Your task to perform on an android device: toggle sleep mode Image 0: 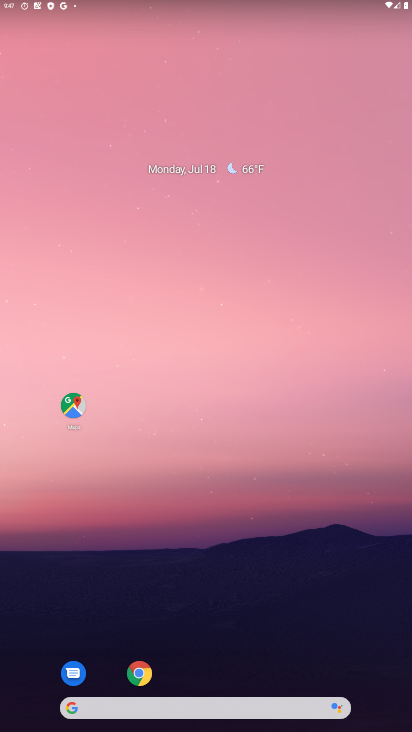
Step 0: drag from (194, 673) to (180, 98)
Your task to perform on an android device: toggle sleep mode Image 1: 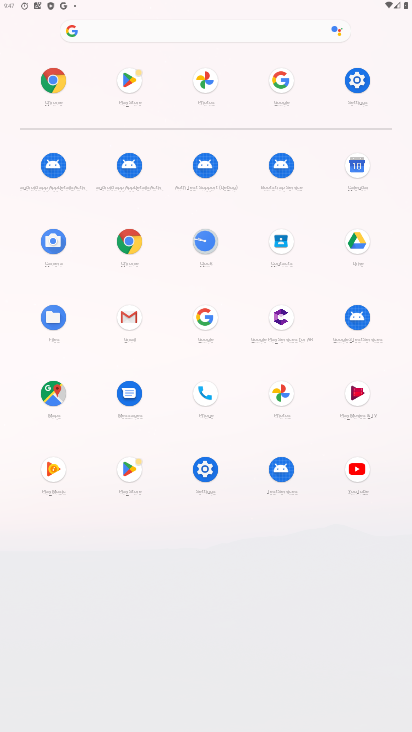
Step 1: click (355, 81)
Your task to perform on an android device: toggle sleep mode Image 2: 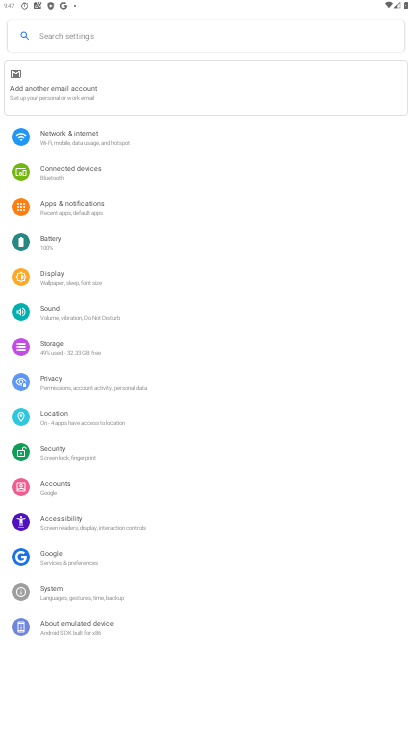
Step 2: click (104, 275)
Your task to perform on an android device: toggle sleep mode Image 3: 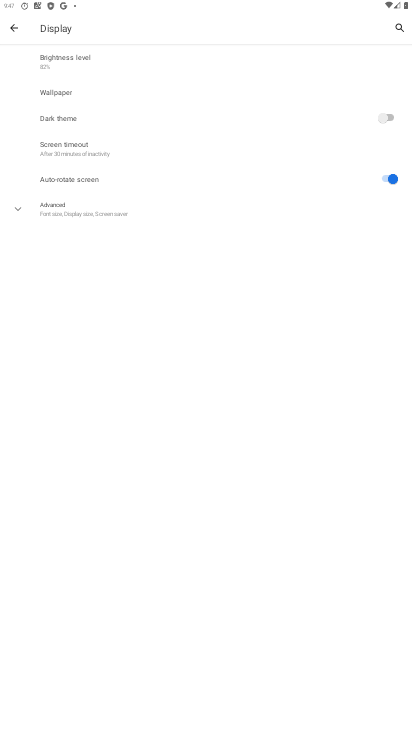
Step 3: click (64, 149)
Your task to perform on an android device: toggle sleep mode Image 4: 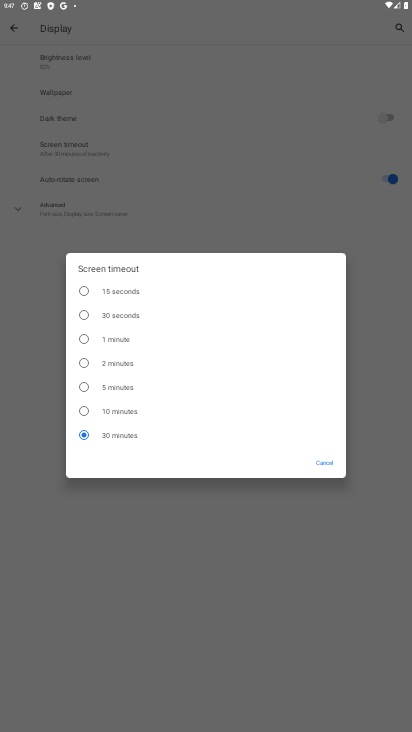
Step 4: click (83, 390)
Your task to perform on an android device: toggle sleep mode Image 5: 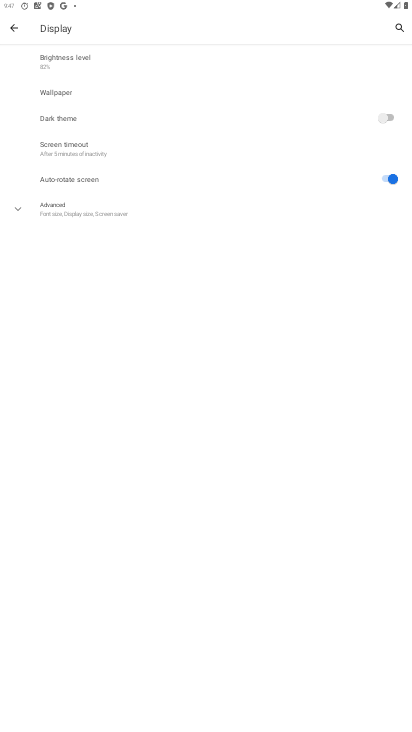
Step 5: task complete